Your task to perform on an android device: Open Wikipedia Image 0: 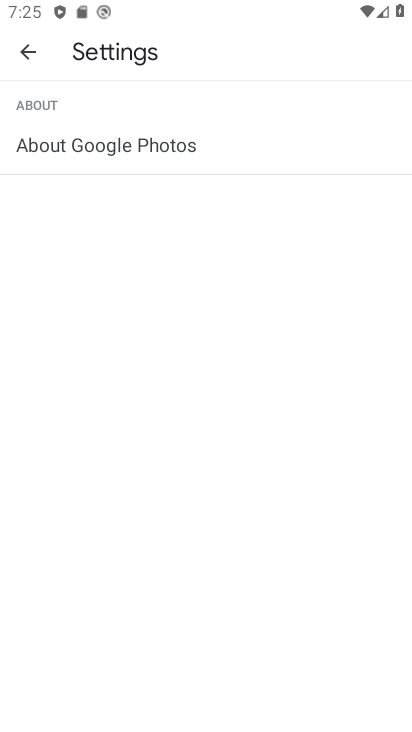
Step 0: press home button
Your task to perform on an android device: Open Wikipedia Image 1: 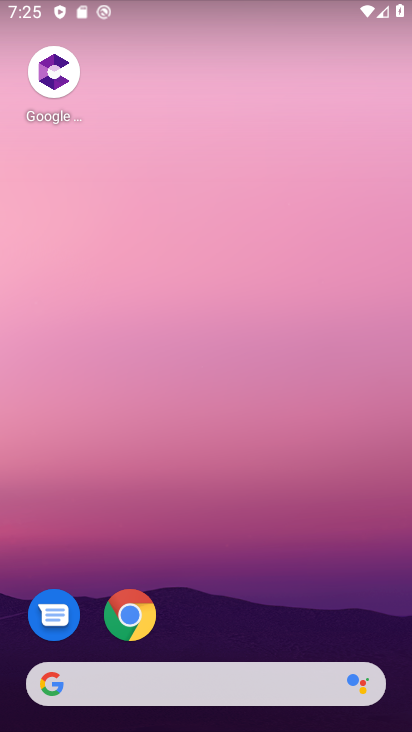
Step 1: click (135, 619)
Your task to perform on an android device: Open Wikipedia Image 2: 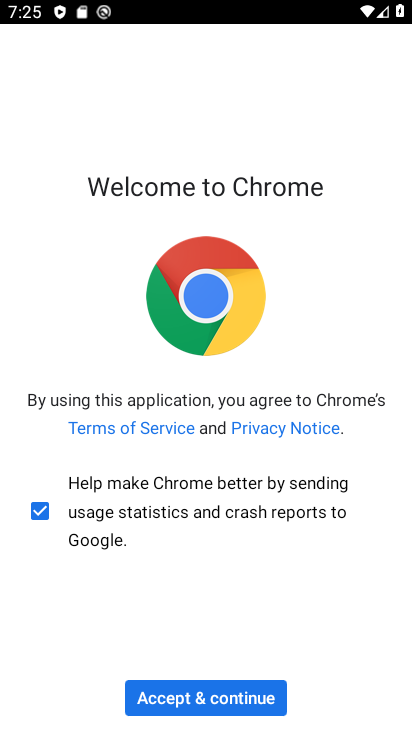
Step 2: click (241, 707)
Your task to perform on an android device: Open Wikipedia Image 3: 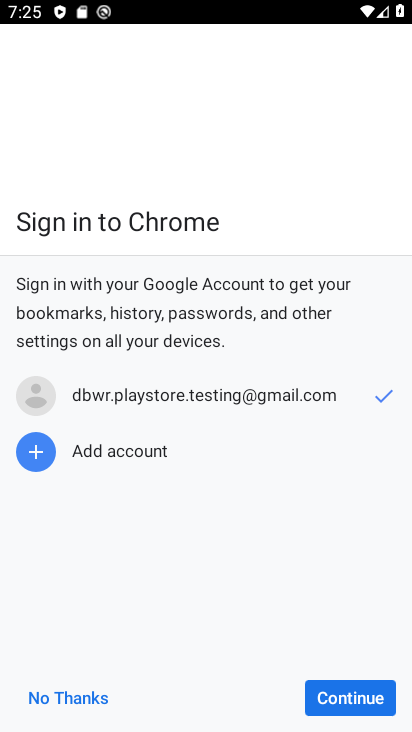
Step 3: click (365, 709)
Your task to perform on an android device: Open Wikipedia Image 4: 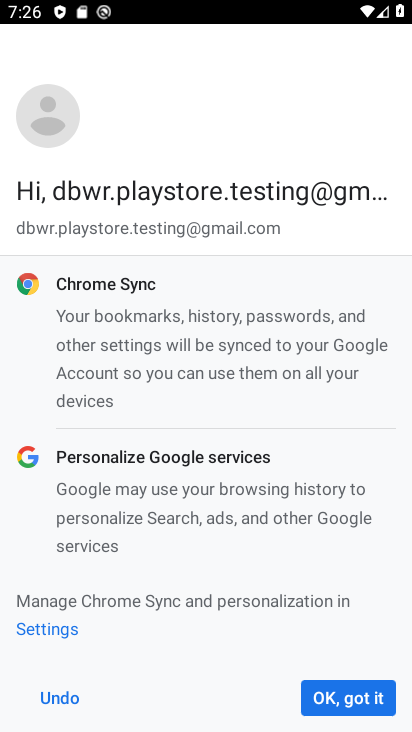
Step 4: click (356, 705)
Your task to perform on an android device: Open Wikipedia Image 5: 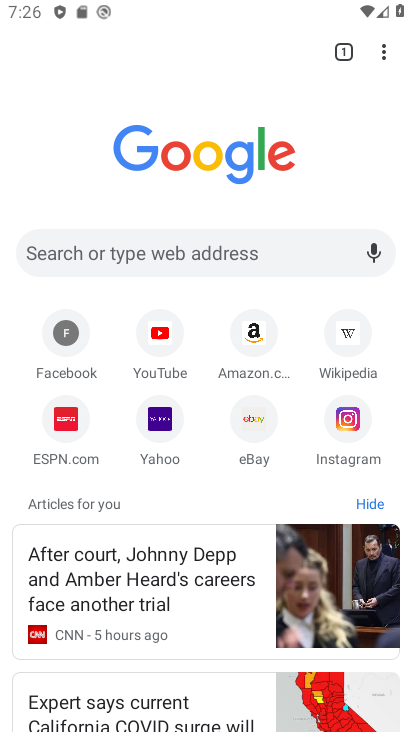
Step 5: click (346, 335)
Your task to perform on an android device: Open Wikipedia Image 6: 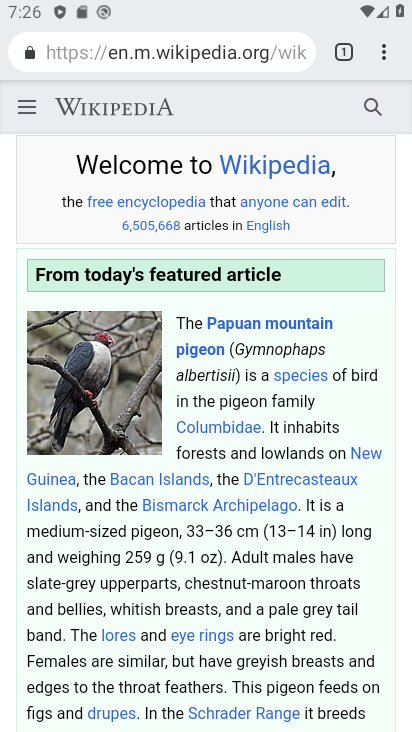
Step 6: task complete